Your task to perform on an android device: refresh tabs in the chrome app Image 0: 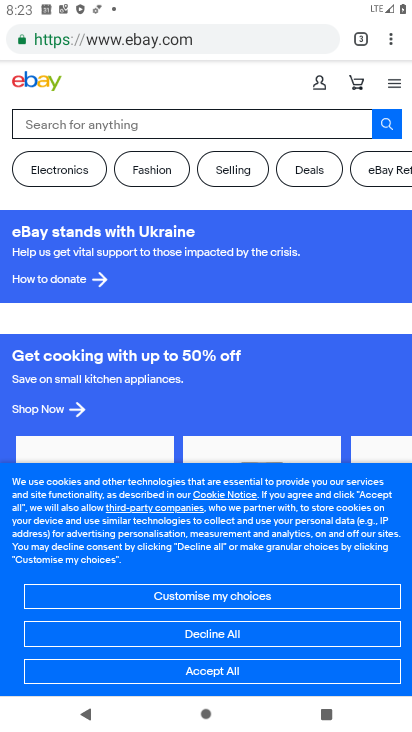
Step 0: press home button
Your task to perform on an android device: refresh tabs in the chrome app Image 1: 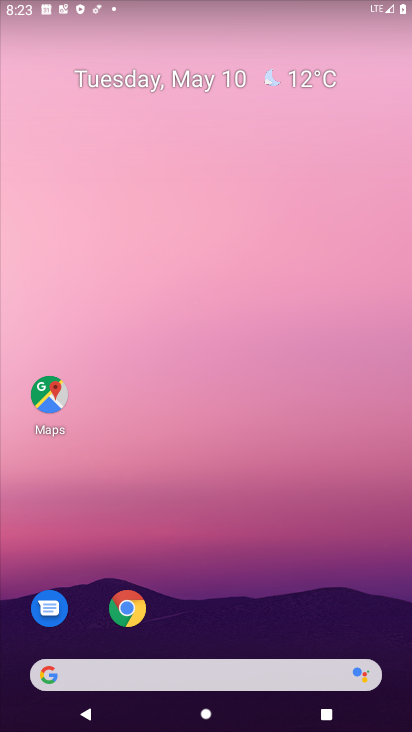
Step 1: click (114, 610)
Your task to perform on an android device: refresh tabs in the chrome app Image 2: 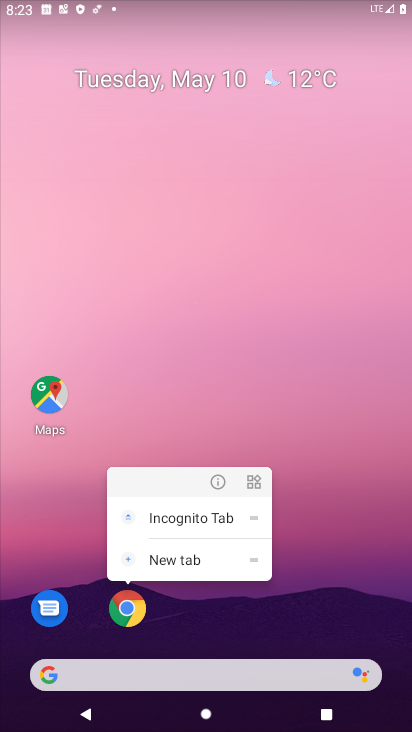
Step 2: click (130, 613)
Your task to perform on an android device: refresh tabs in the chrome app Image 3: 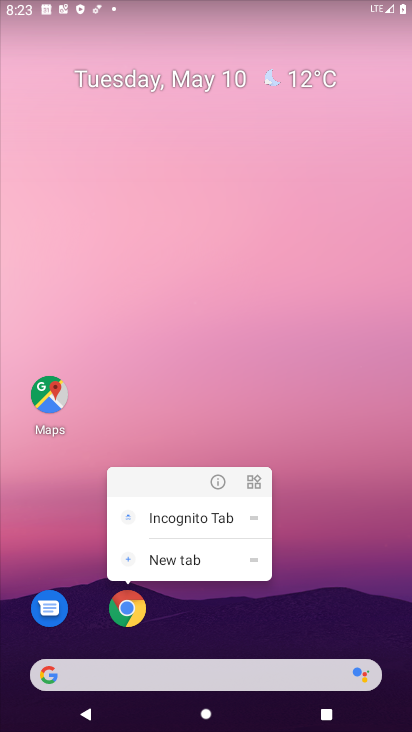
Step 3: click (124, 613)
Your task to perform on an android device: refresh tabs in the chrome app Image 4: 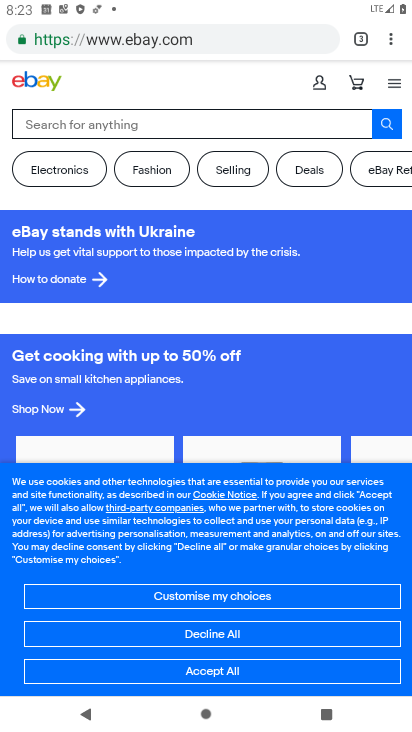
Step 4: click (389, 54)
Your task to perform on an android device: refresh tabs in the chrome app Image 5: 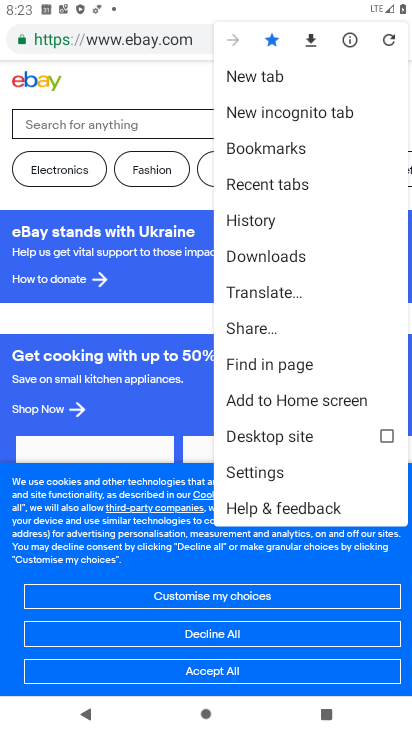
Step 5: click (386, 41)
Your task to perform on an android device: refresh tabs in the chrome app Image 6: 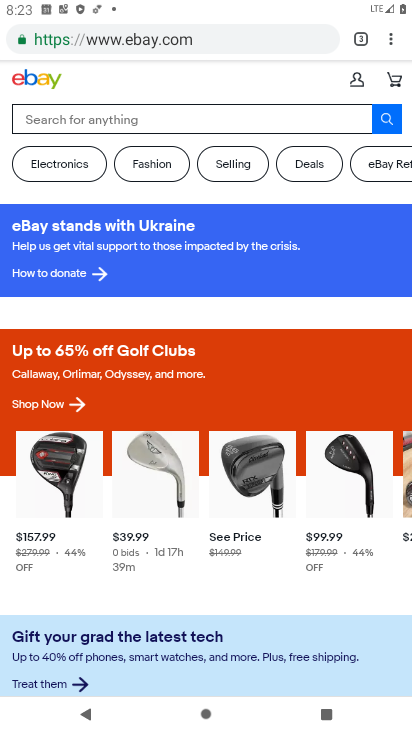
Step 6: task complete